Your task to perform on an android device: toggle data saver in the chrome app Image 0: 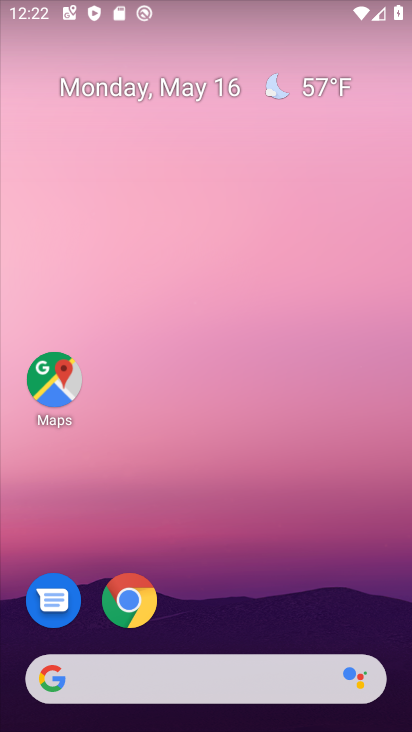
Step 0: click (112, 599)
Your task to perform on an android device: toggle data saver in the chrome app Image 1: 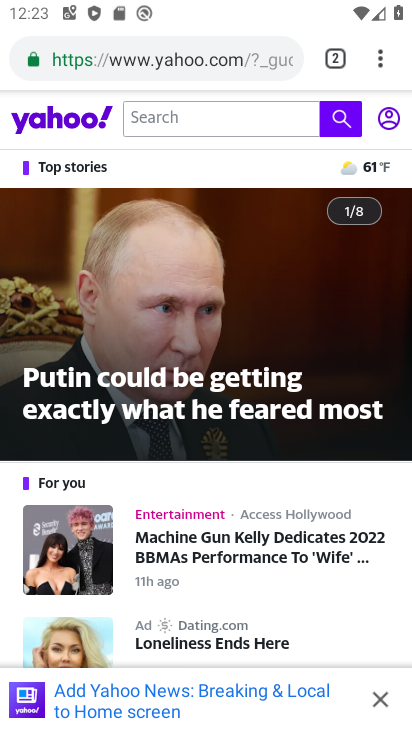
Step 1: drag from (376, 63) to (175, 626)
Your task to perform on an android device: toggle data saver in the chrome app Image 2: 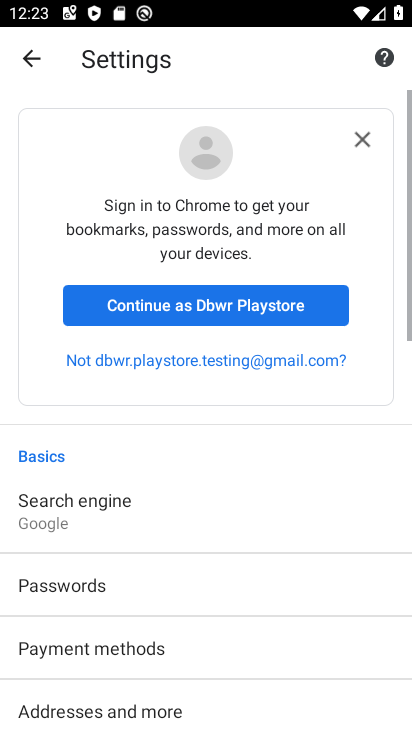
Step 2: drag from (204, 598) to (311, 44)
Your task to perform on an android device: toggle data saver in the chrome app Image 3: 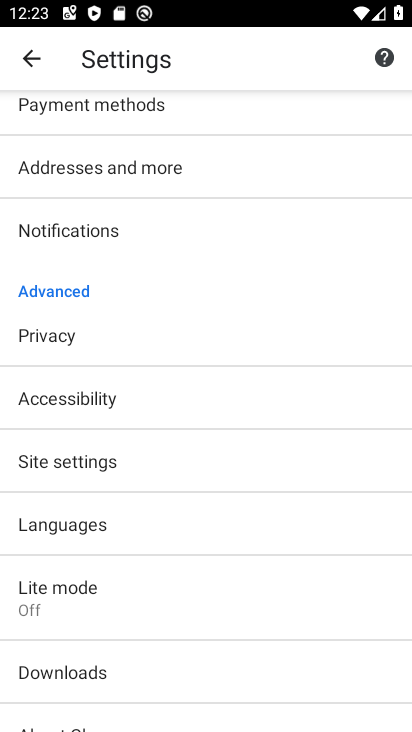
Step 3: click (47, 596)
Your task to perform on an android device: toggle data saver in the chrome app Image 4: 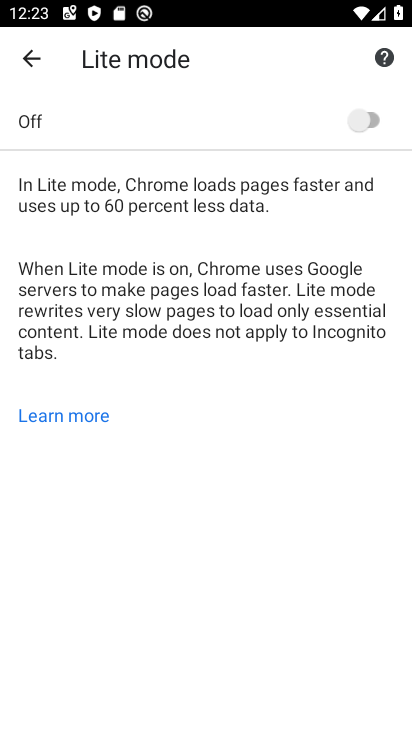
Step 4: click (363, 116)
Your task to perform on an android device: toggle data saver in the chrome app Image 5: 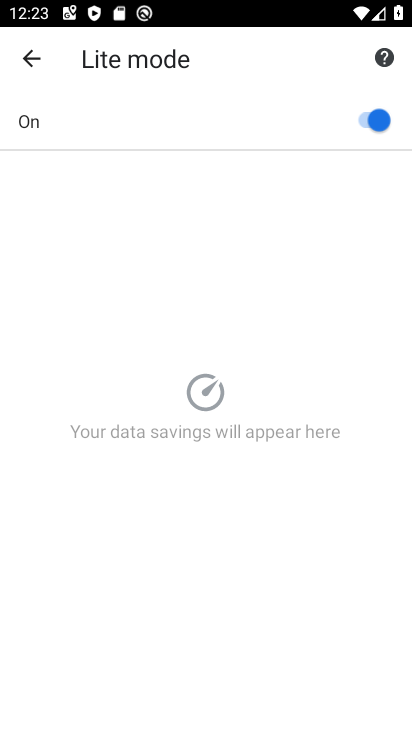
Step 5: task complete